Your task to perform on an android device: What's the weather going to be this weekend? Image 0: 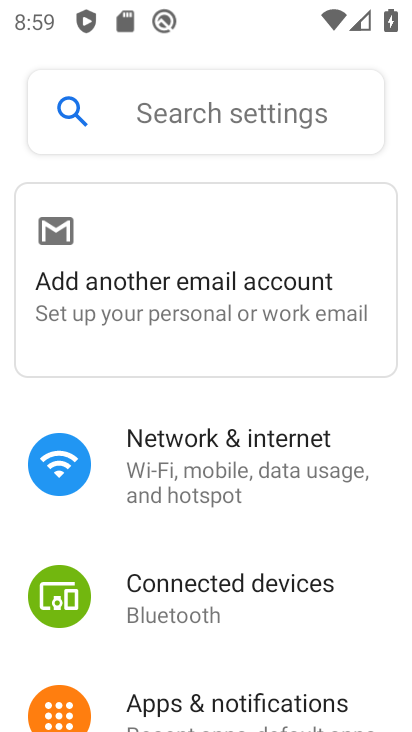
Step 0: press home button
Your task to perform on an android device: What's the weather going to be this weekend? Image 1: 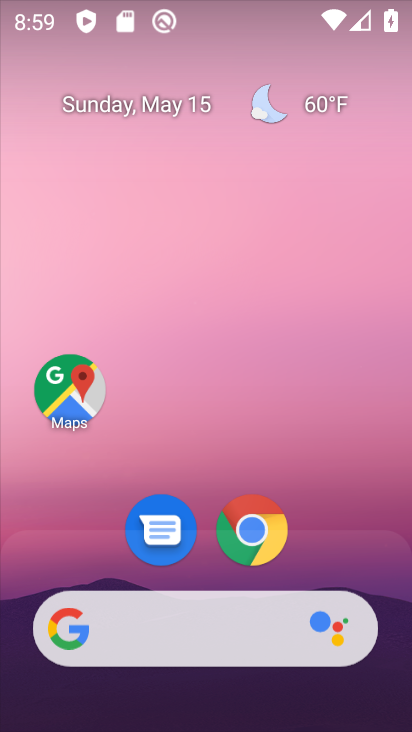
Step 1: click (166, 654)
Your task to perform on an android device: What's the weather going to be this weekend? Image 2: 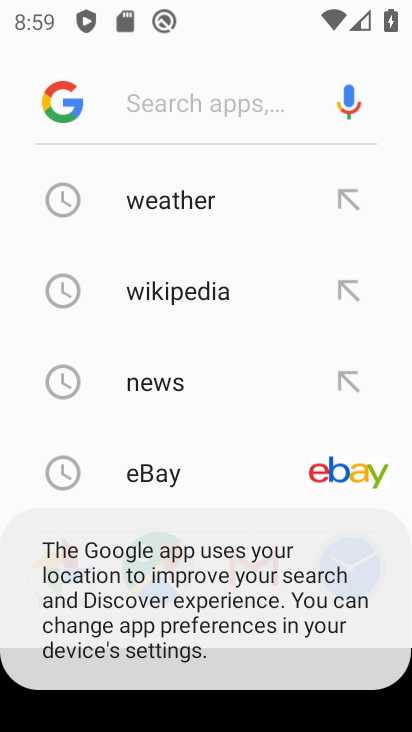
Step 2: click (187, 201)
Your task to perform on an android device: What's the weather going to be this weekend? Image 3: 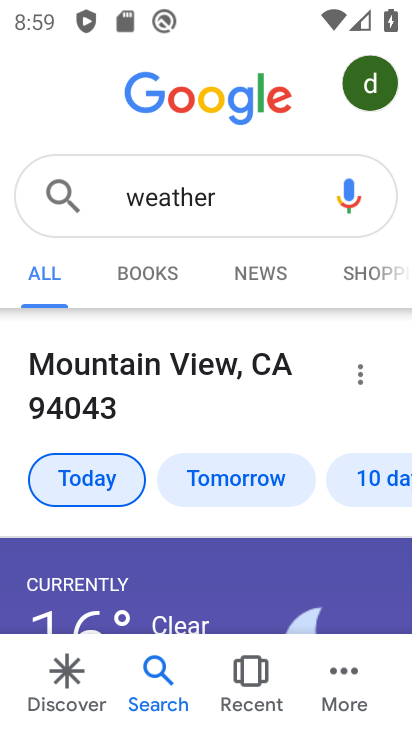
Step 3: click (377, 469)
Your task to perform on an android device: What's the weather going to be this weekend? Image 4: 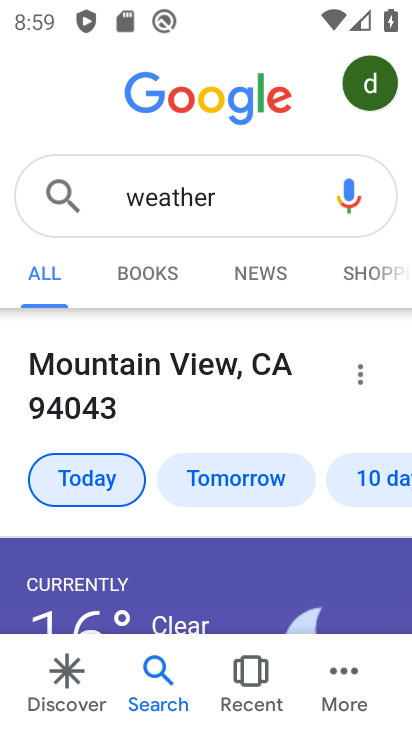
Step 4: click (388, 490)
Your task to perform on an android device: What's the weather going to be this weekend? Image 5: 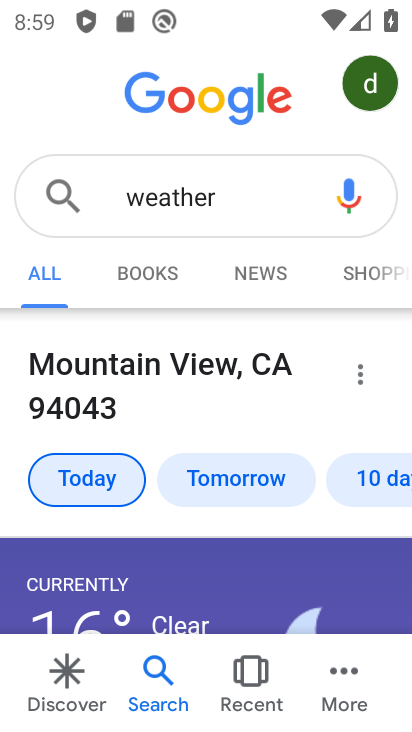
Step 5: click (388, 490)
Your task to perform on an android device: What's the weather going to be this weekend? Image 6: 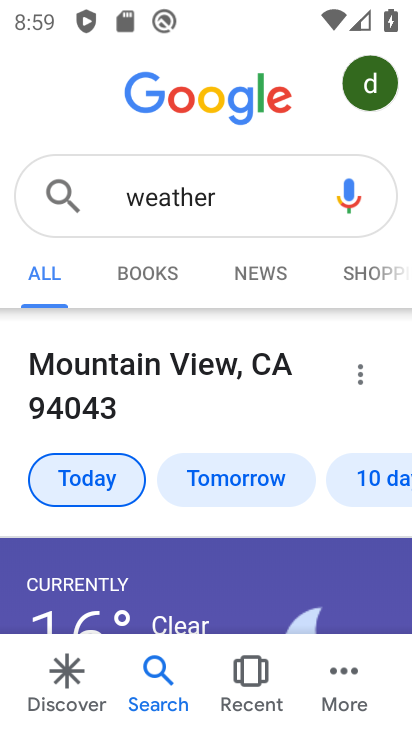
Step 6: click (395, 473)
Your task to perform on an android device: What's the weather going to be this weekend? Image 7: 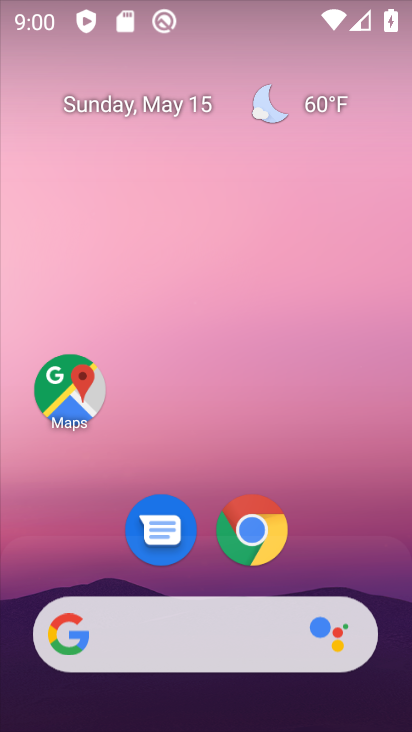
Step 7: click (194, 640)
Your task to perform on an android device: What's the weather going to be this weekend? Image 8: 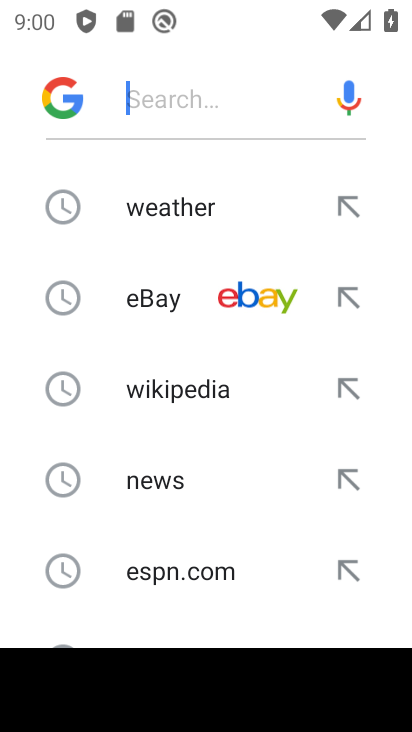
Step 8: click (159, 201)
Your task to perform on an android device: What's the weather going to be this weekend? Image 9: 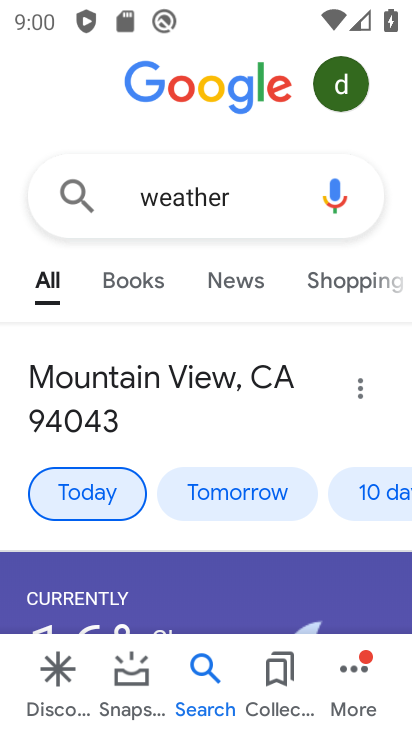
Step 9: click (395, 492)
Your task to perform on an android device: What's the weather going to be this weekend? Image 10: 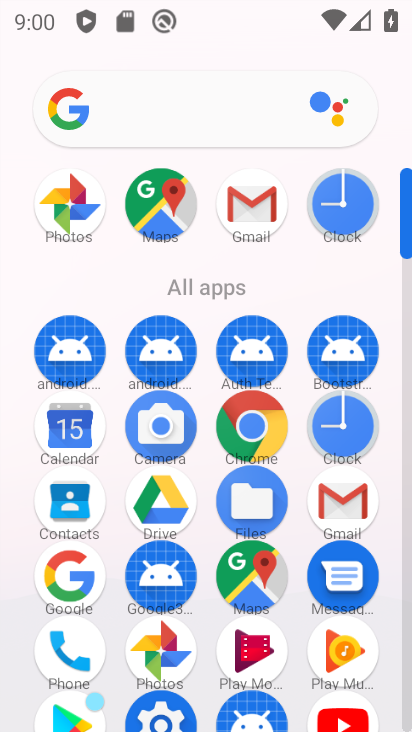
Step 10: task complete